Your task to perform on an android device: Open Maps and search for coffee Image 0: 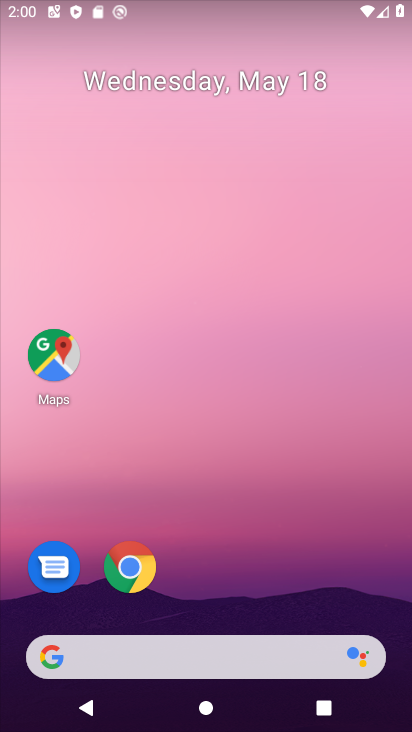
Step 0: click (56, 361)
Your task to perform on an android device: Open Maps and search for coffee Image 1: 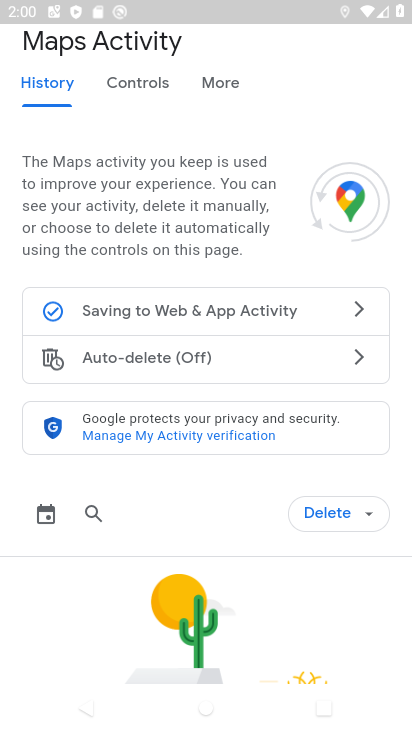
Step 1: press back button
Your task to perform on an android device: Open Maps and search for coffee Image 2: 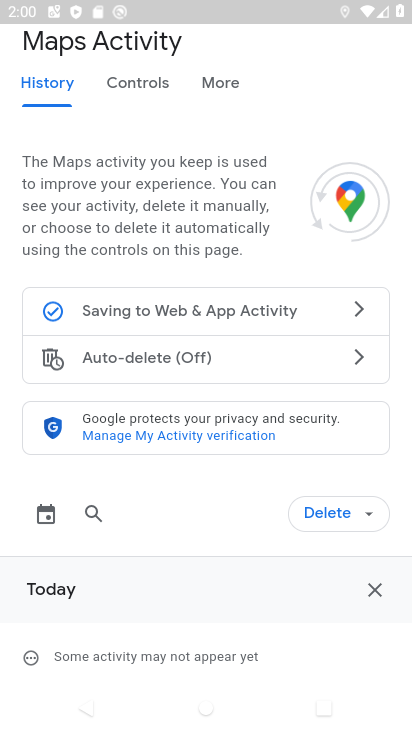
Step 2: press back button
Your task to perform on an android device: Open Maps and search for coffee Image 3: 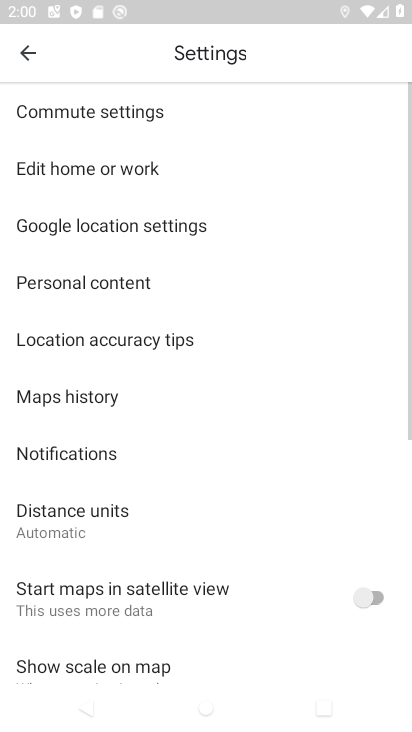
Step 3: click (19, 46)
Your task to perform on an android device: Open Maps and search for coffee Image 4: 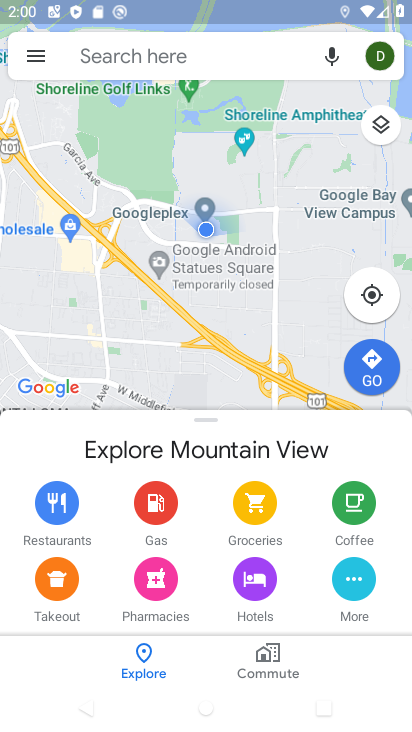
Step 4: click (21, 50)
Your task to perform on an android device: Open Maps and search for coffee Image 5: 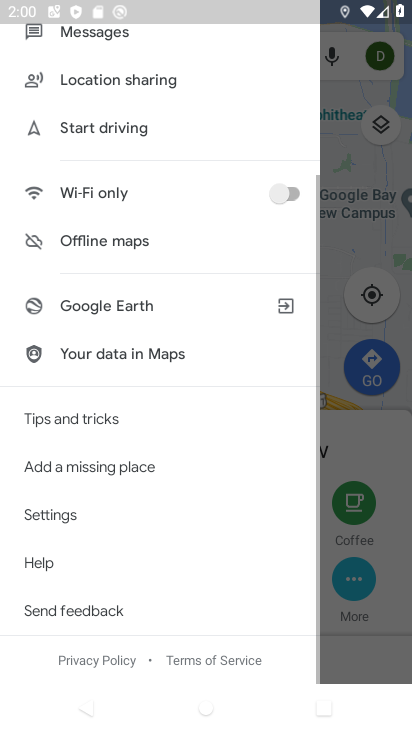
Step 5: click (340, 65)
Your task to perform on an android device: Open Maps and search for coffee Image 6: 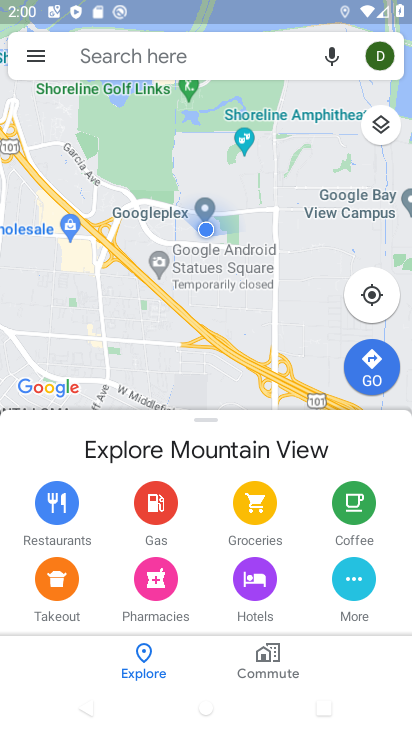
Step 6: click (232, 59)
Your task to perform on an android device: Open Maps and search for coffee Image 7: 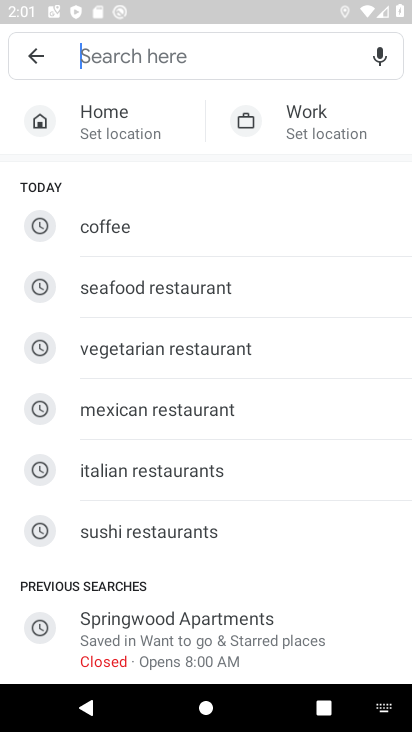
Step 7: click (120, 230)
Your task to perform on an android device: Open Maps and search for coffee Image 8: 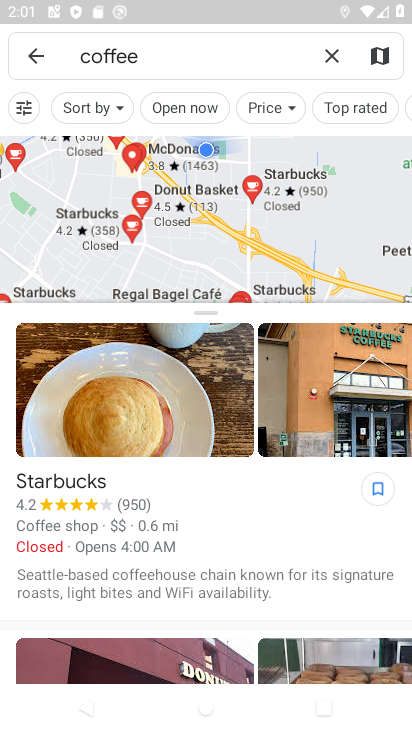
Step 8: task complete